Your task to perform on an android device: open sync settings in chrome Image 0: 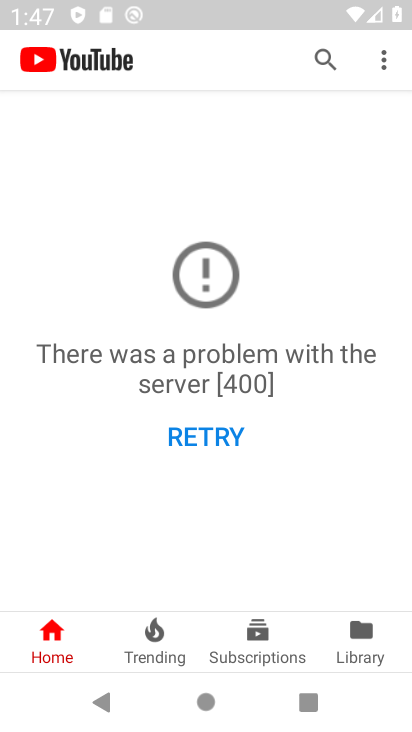
Step 0: press home button
Your task to perform on an android device: open sync settings in chrome Image 1: 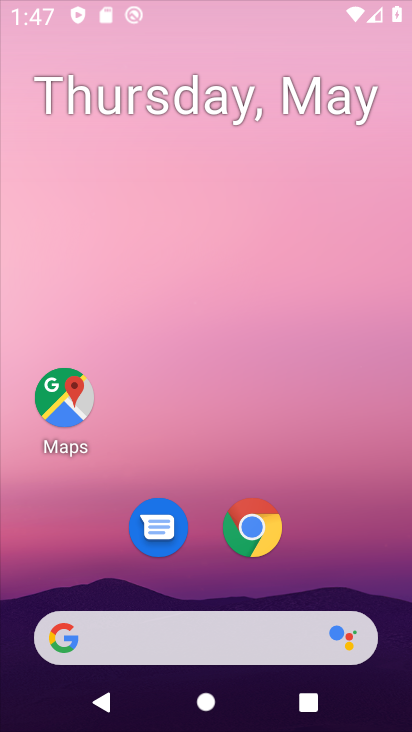
Step 1: click (267, 527)
Your task to perform on an android device: open sync settings in chrome Image 2: 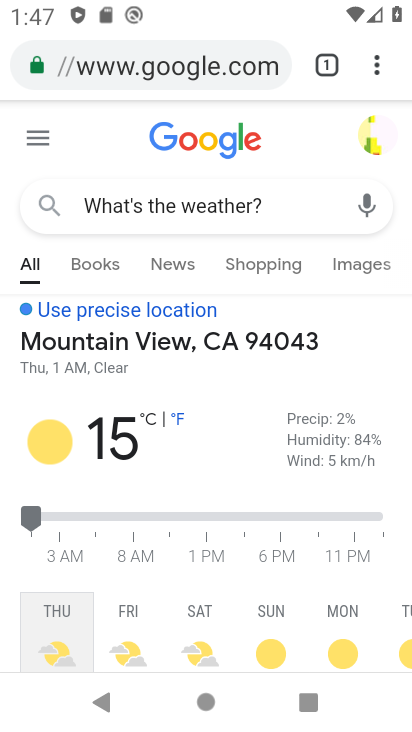
Step 2: drag from (359, 79) to (177, 569)
Your task to perform on an android device: open sync settings in chrome Image 3: 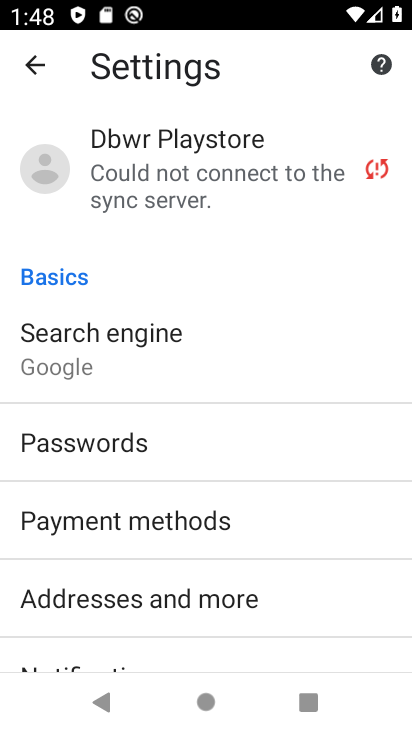
Step 3: drag from (297, 622) to (281, 201)
Your task to perform on an android device: open sync settings in chrome Image 4: 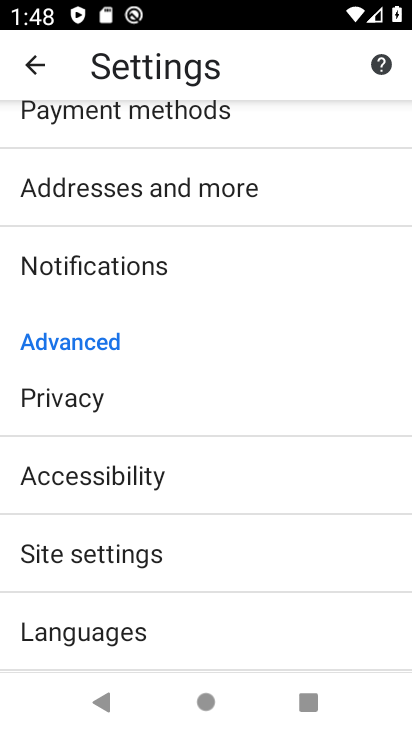
Step 4: drag from (214, 205) to (239, 699)
Your task to perform on an android device: open sync settings in chrome Image 5: 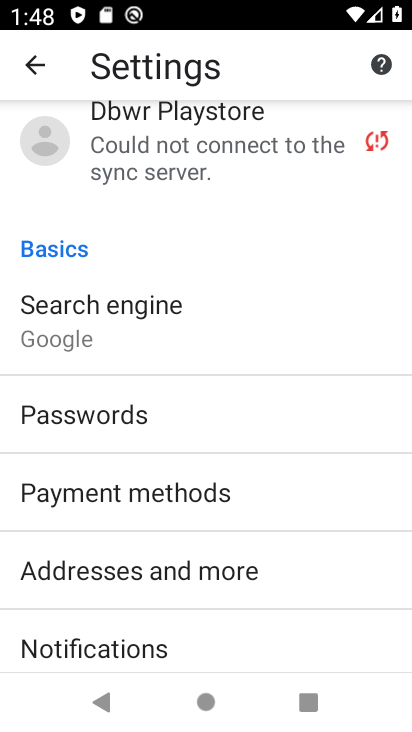
Step 5: click (265, 141)
Your task to perform on an android device: open sync settings in chrome Image 6: 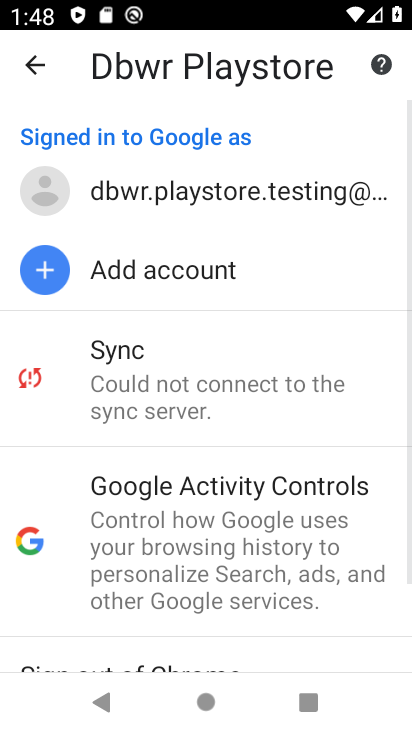
Step 6: click (160, 362)
Your task to perform on an android device: open sync settings in chrome Image 7: 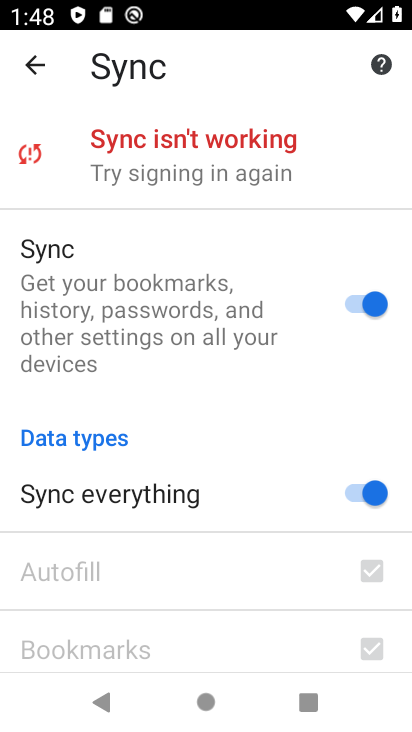
Step 7: task complete